Your task to perform on an android device: Open Android settings Image 0: 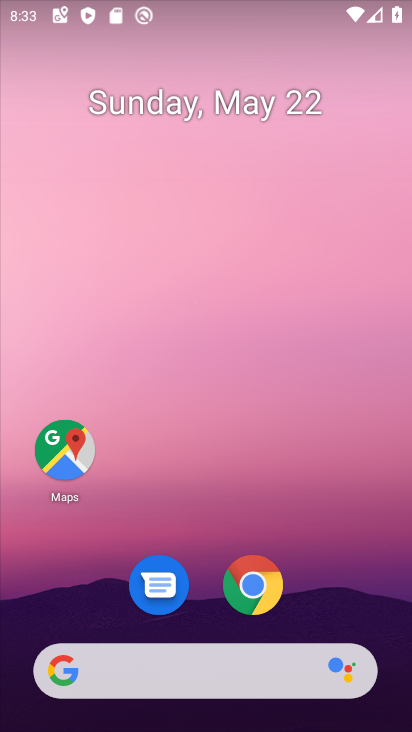
Step 0: drag from (198, 525) to (198, 3)
Your task to perform on an android device: Open Android settings Image 1: 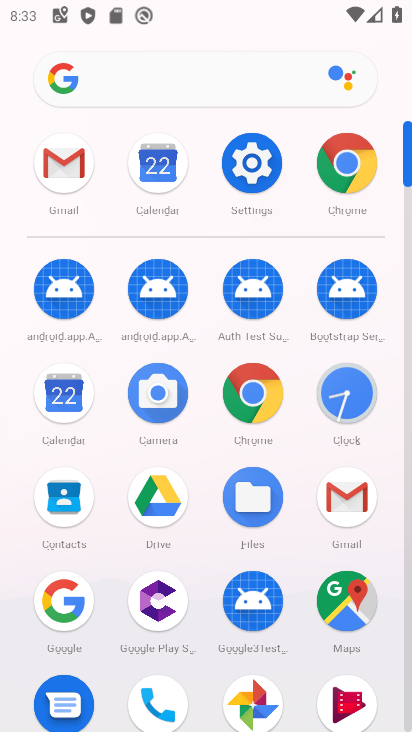
Step 1: click (254, 174)
Your task to perform on an android device: Open Android settings Image 2: 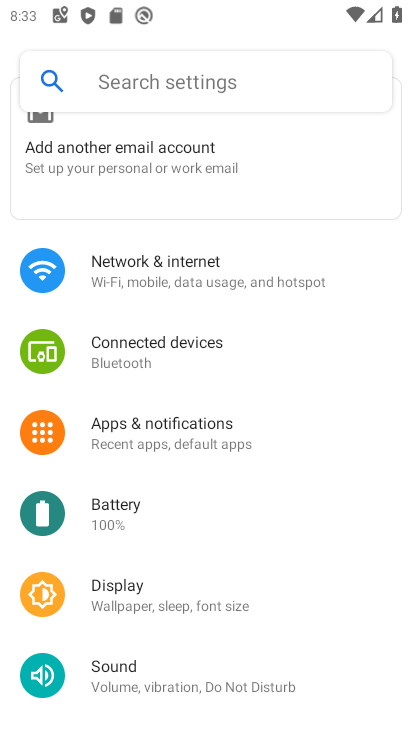
Step 2: drag from (195, 629) to (242, 120)
Your task to perform on an android device: Open Android settings Image 3: 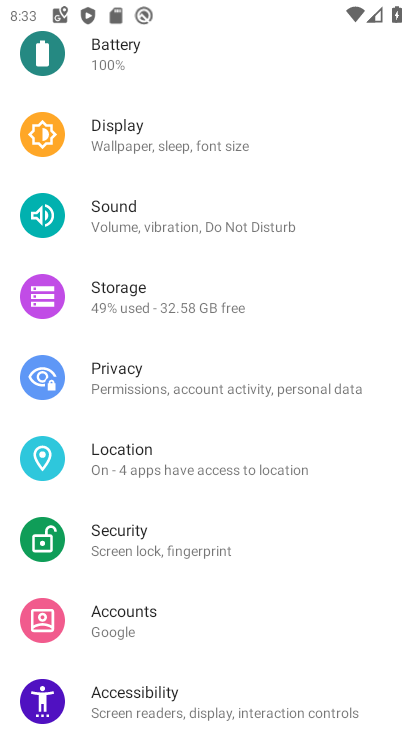
Step 3: drag from (199, 578) to (253, 158)
Your task to perform on an android device: Open Android settings Image 4: 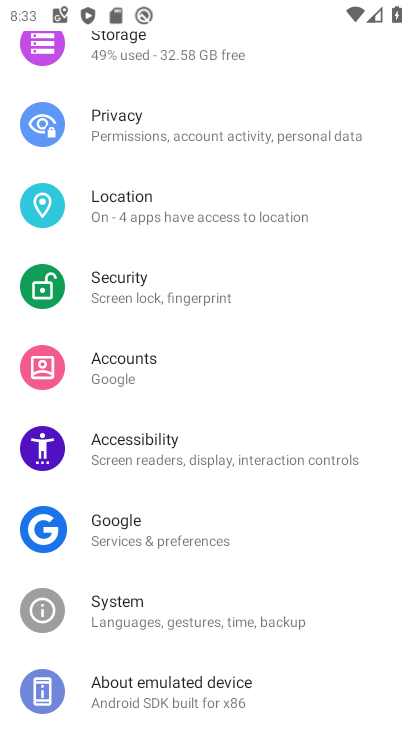
Step 4: click (184, 684)
Your task to perform on an android device: Open Android settings Image 5: 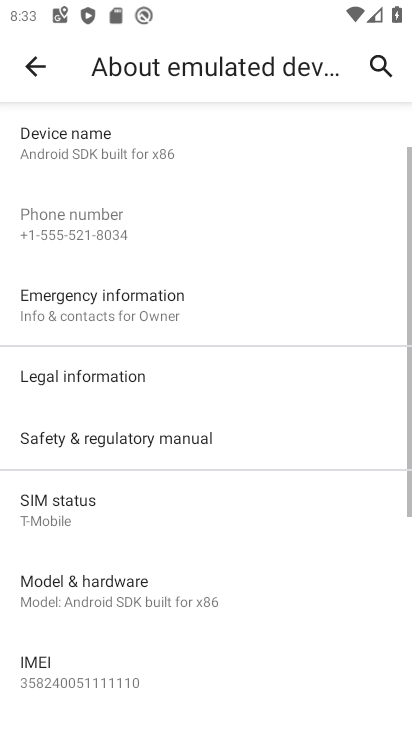
Step 5: task complete